Your task to perform on an android device: Do I have any events today? Image 0: 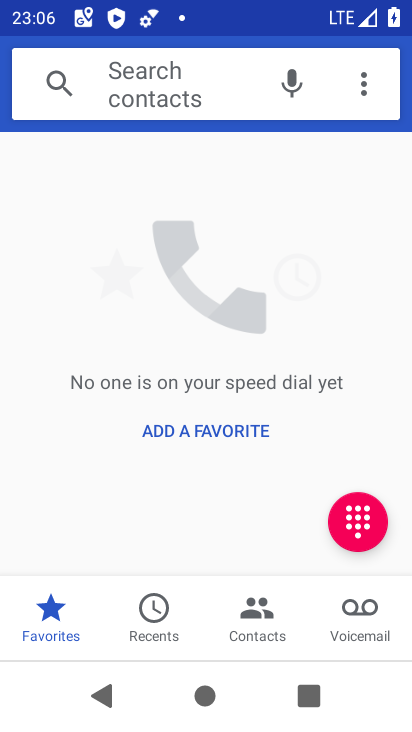
Step 0: press home button
Your task to perform on an android device: Do I have any events today? Image 1: 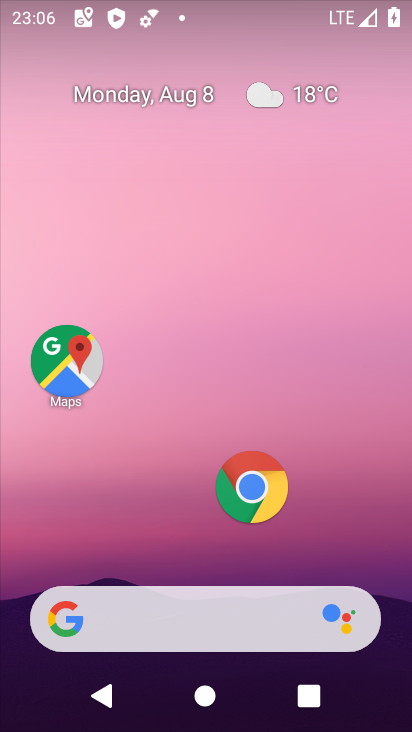
Step 1: drag from (188, 515) to (190, 17)
Your task to perform on an android device: Do I have any events today? Image 2: 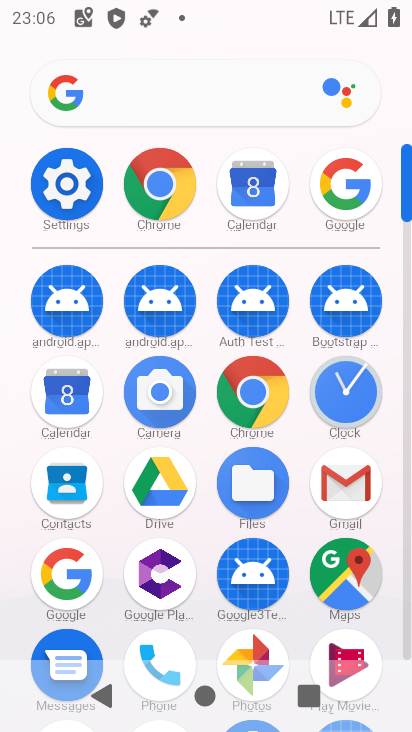
Step 2: click (66, 403)
Your task to perform on an android device: Do I have any events today? Image 3: 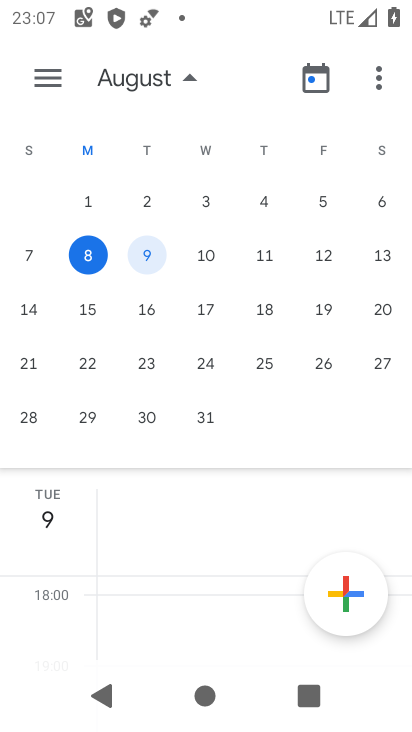
Step 3: click (45, 73)
Your task to perform on an android device: Do I have any events today? Image 4: 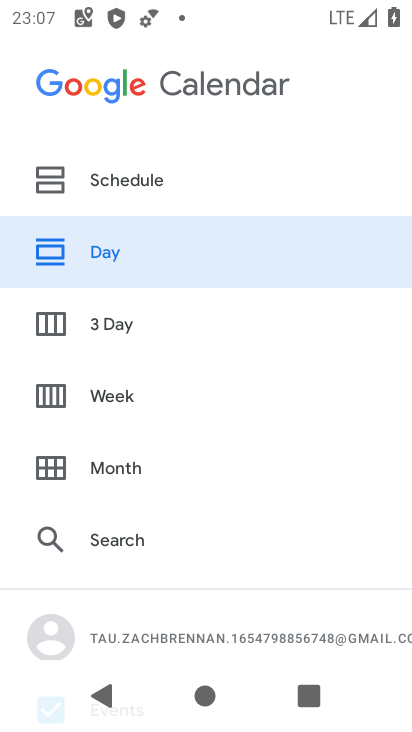
Step 4: drag from (109, 595) to (104, 297)
Your task to perform on an android device: Do I have any events today? Image 5: 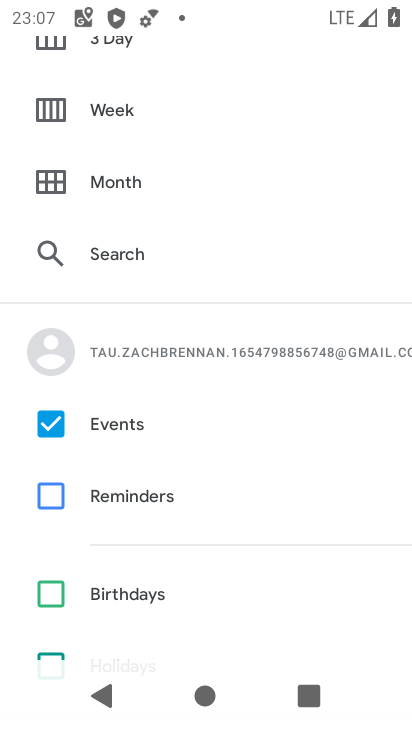
Step 5: drag from (195, 188) to (213, 463)
Your task to perform on an android device: Do I have any events today? Image 6: 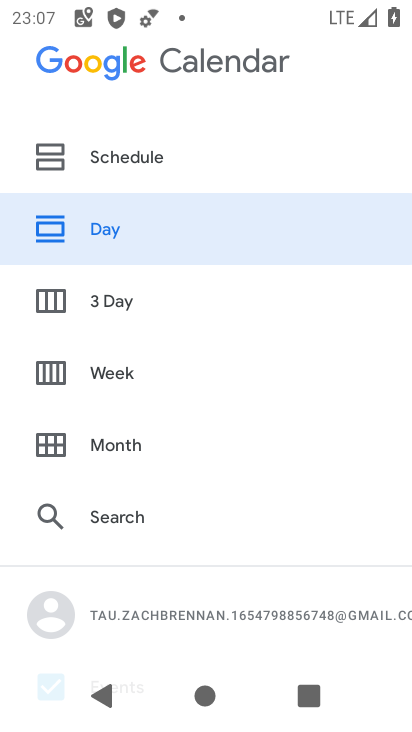
Step 6: click (110, 222)
Your task to perform on an android device: Do I have any events today? Image 7: 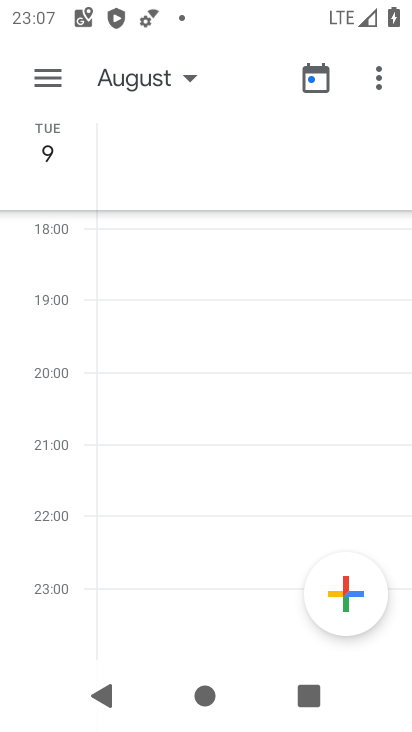
Step 7: task complete